Your task to perform on an android device: allow cookies in the chrome app Image 0: 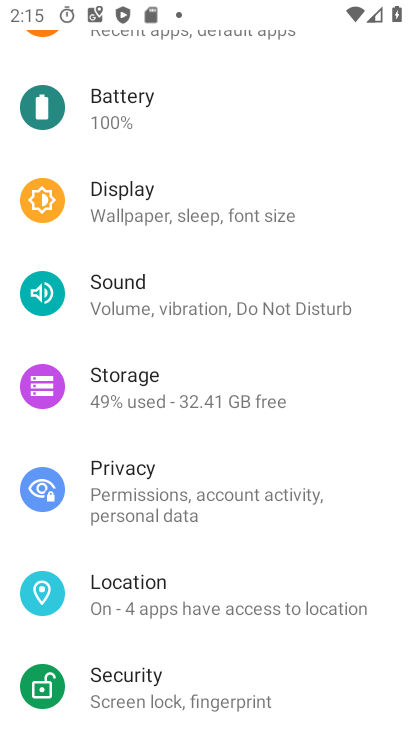
Step 0: press home button
Your task to perform on an android device: allow cookies in the chrome app Image 1: 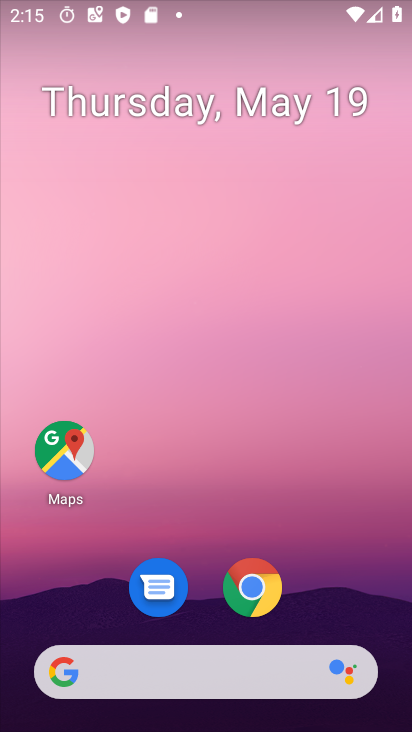
Step 1: click (252, 583)
Your task to perform on an android device: allow cookies in the chrome app Image 2: 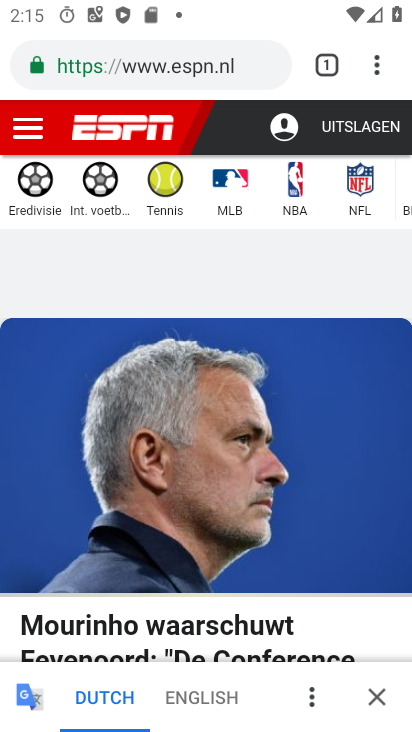
Step 2: click (376, 71)
Your task to perform on an android device: allow cookies in the chrome app Image 3: 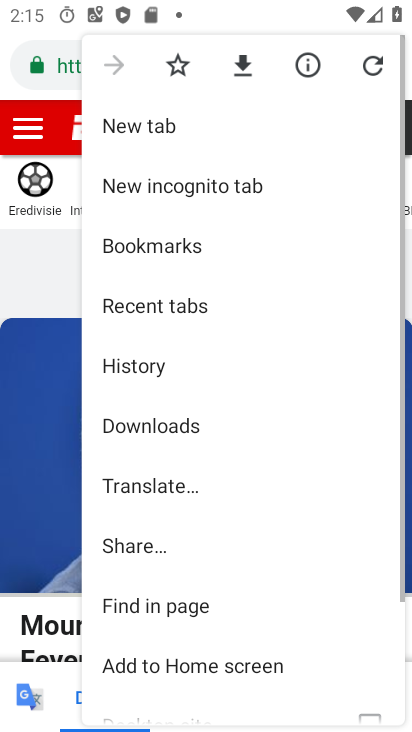
Step 3: drag from (205, 665) to (207, 232)
Your task to perform on an android device: allow cookies in the chrome app Image 4: 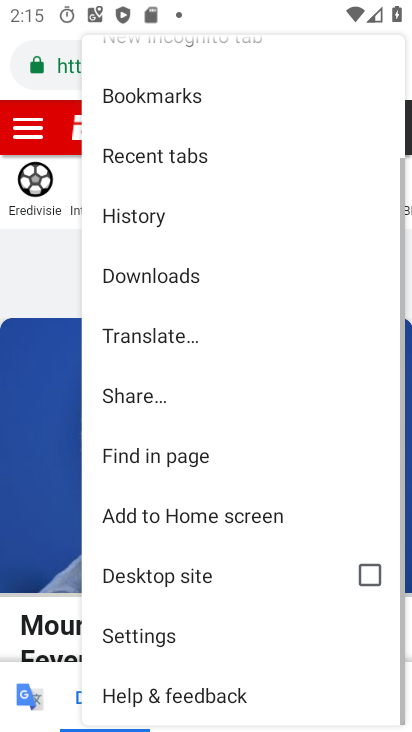
Step 4: click (133, 635)
Your task to perform on an android device: allow cookies in the chrome app Image 5: 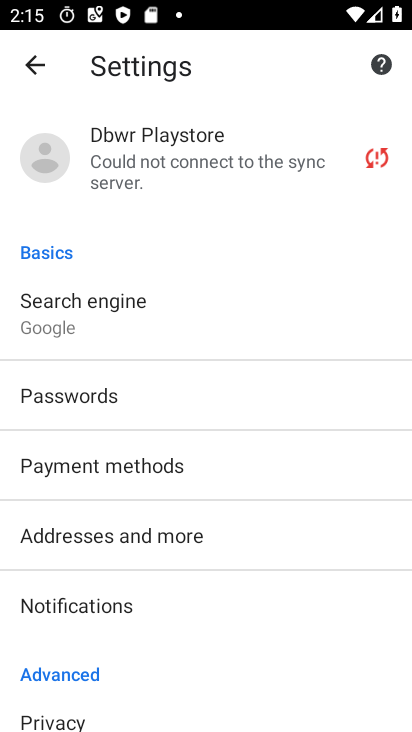
Step 5: drag from (136, 687) to (204, 253)
Your task to perform on an android device: allow cookies in the chrome app Image 6: 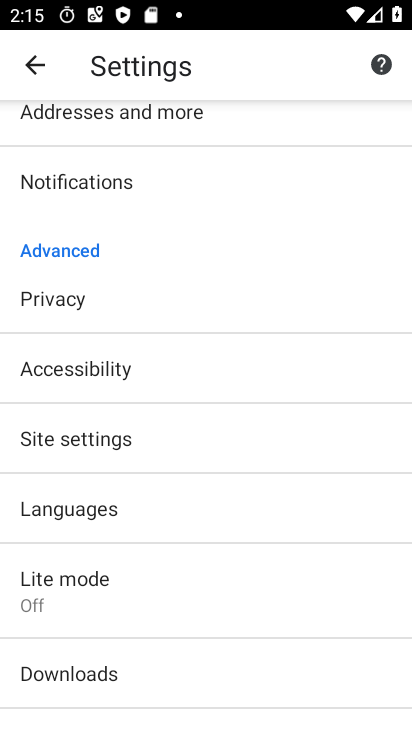
Step 6: click (91, 435)
Your task to perform on an android device: allow cookies in the chrome app Image 7: 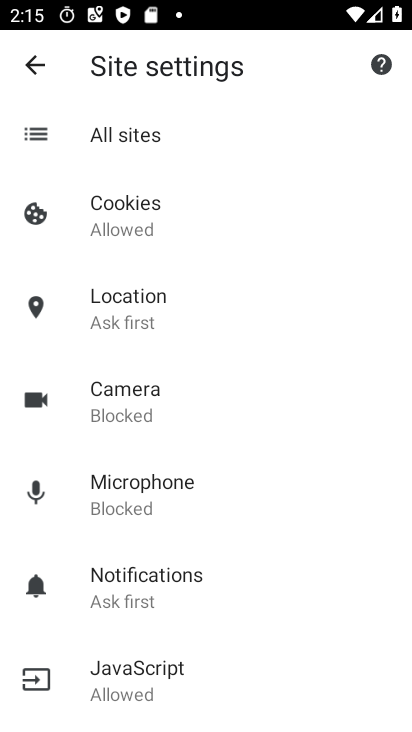
Step 7: click (108, 215)
Your task to perform on an android device: allow cookies in the chrome app Image 8: 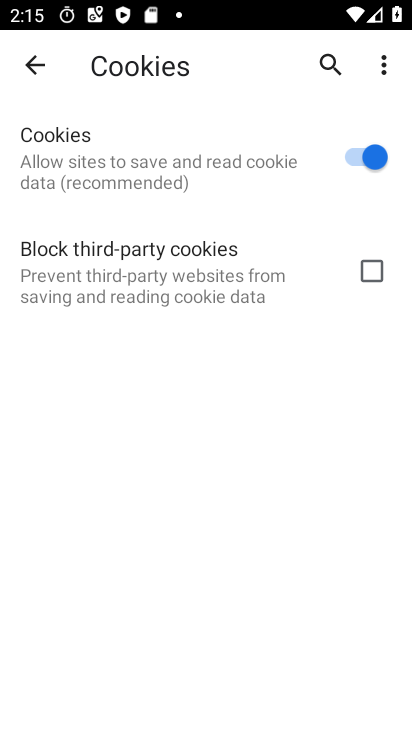
Step 8: task complete